Your task to perform on an android device: turn off translation in the chrome app Image 0: 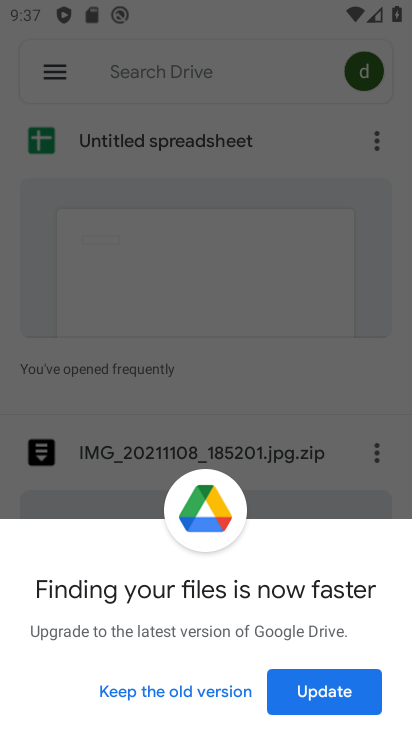
Step 0: press home button
Your task to perform on an android device: turn off translation in the chrome app Image 1: 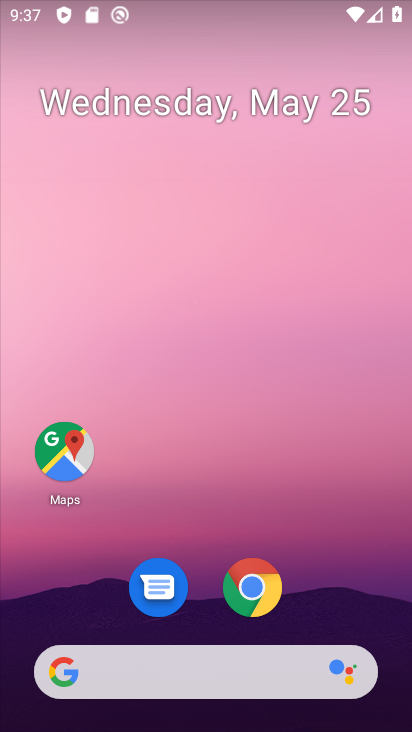
Step 1: click (179, 451)
Your task to perform on an android device: turn off translation in the chrome app Image 2: 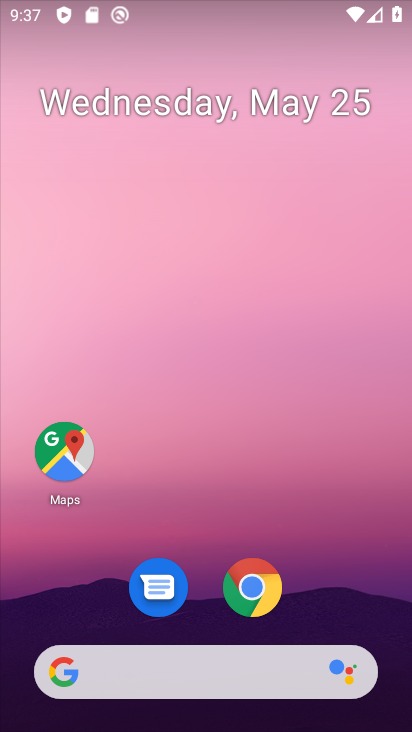
Step 2: click (264, 598)
Your task to perform on an android device: turn off translation in the chrome app Image 3: 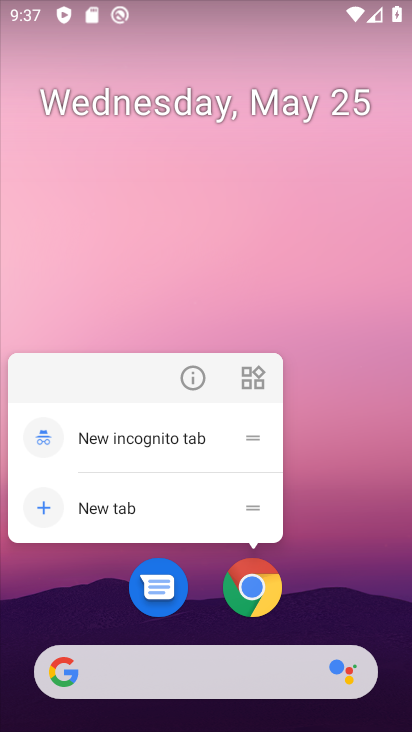
Step 3: click (256, 587)
Your task to perform on an android device: turn off translation in the chrome app Image 4: 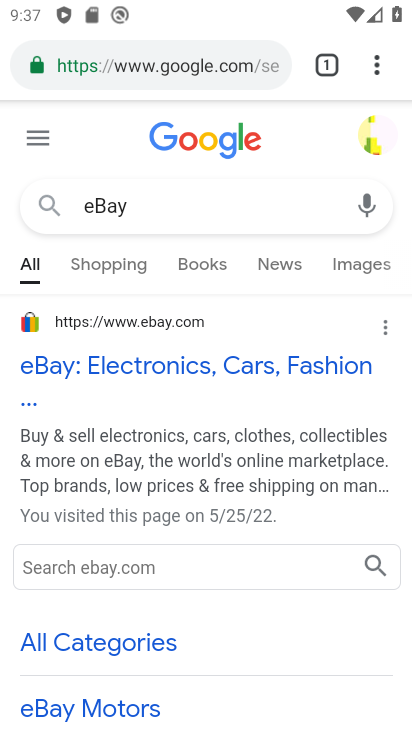
Step 4: click (376, 64)
Your task to perform on an android device: turn off translation in the chrome app Image 5: 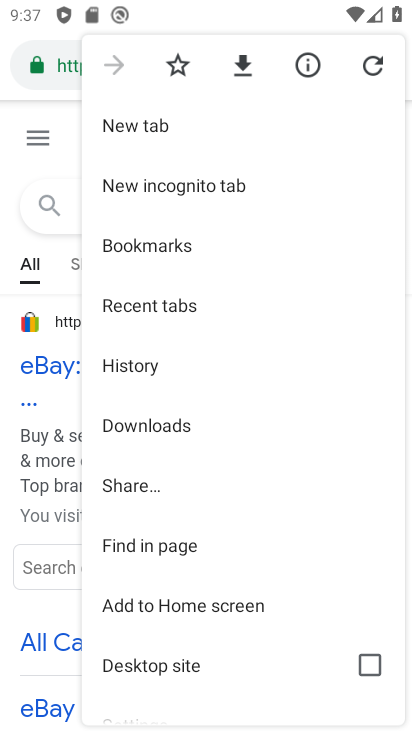
Step 5: drag from (169, 569) to (204, 214)
Your task to perform on an android device: turn off translation in the chrome app Image 6: 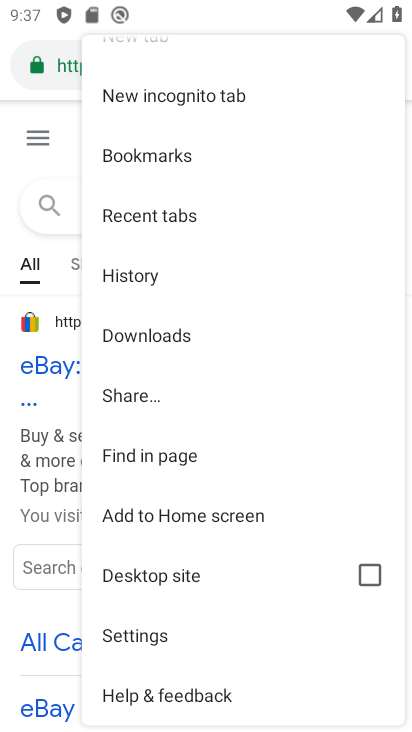
Step 6: click (166, 634)
Your task to perform on an android device: turn off translation in the chrome app Image 7: 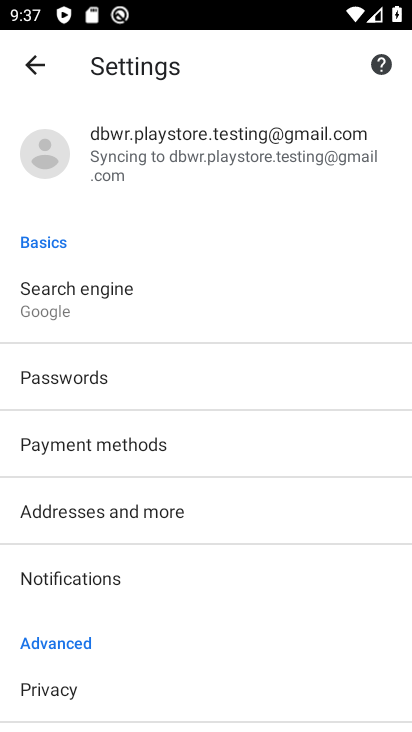
Step 7: drag from (163, 615) to (190, 284)
Your task to perform on an android device: turn off translation in the chrome app Image 8: 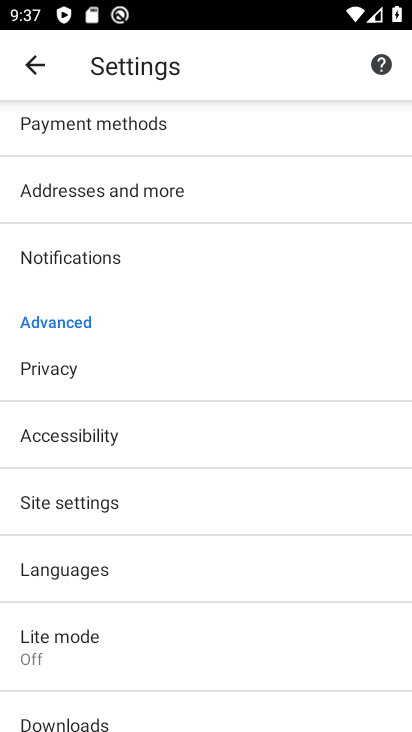
Step 8: click (100, 576)
Your task to perform on an android device: turn off translation in the chrome app Image 9: 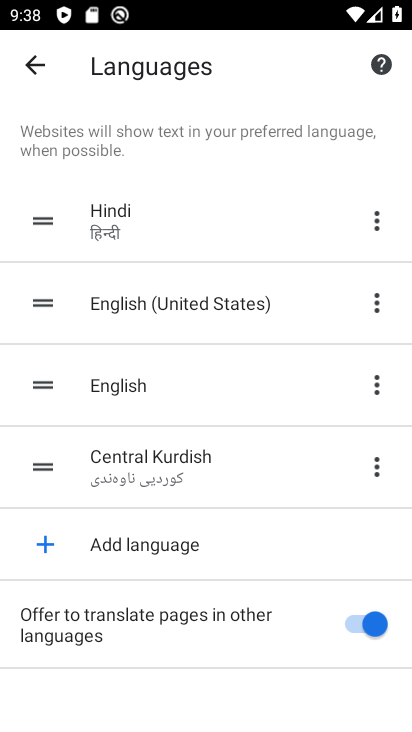
Step 9: click (350, 627)
Your task to perform on an android device: turn off translation in the chrome app Image 10: 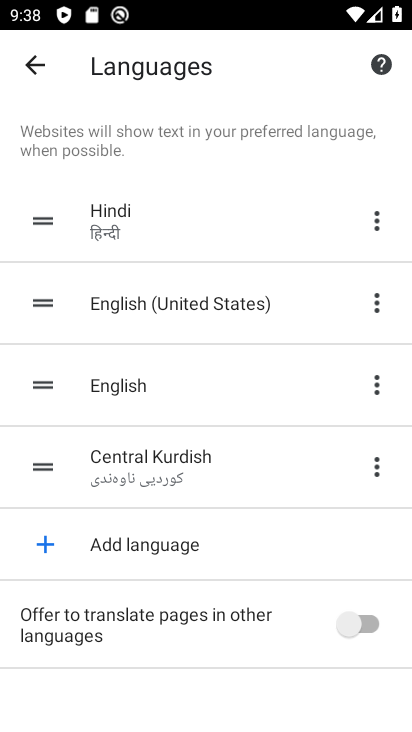
Step 10: task complete